Your task to perform on an android device: turn off location Image 0: 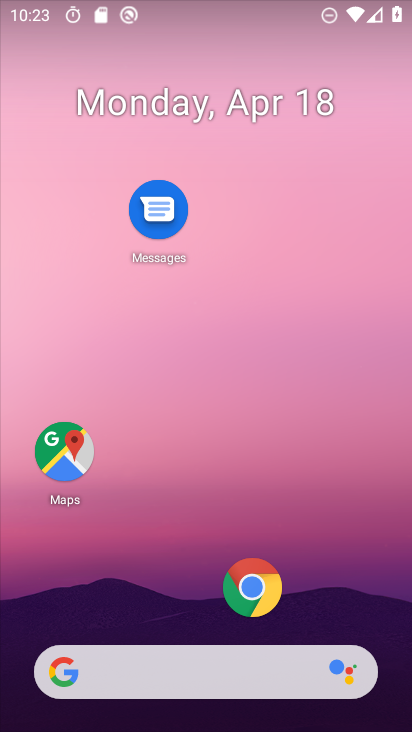
Step 0: drag from (162, 599) to (282, 38)
Your task to perform on an android device: turn off location Image 1: 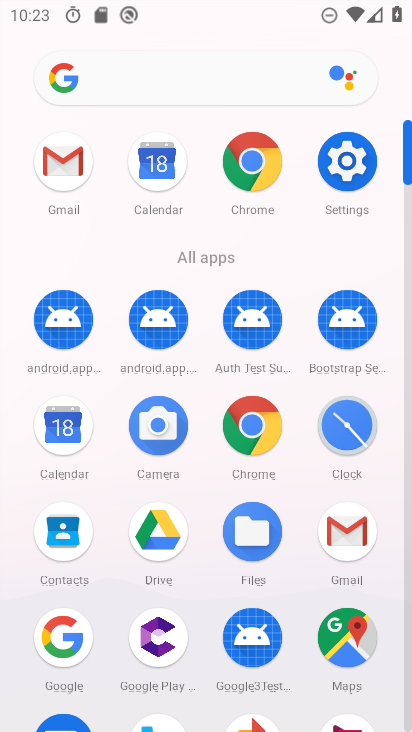
Step 1: click (342, 173)
Your task to perform on an android device: turn off location Image 2: 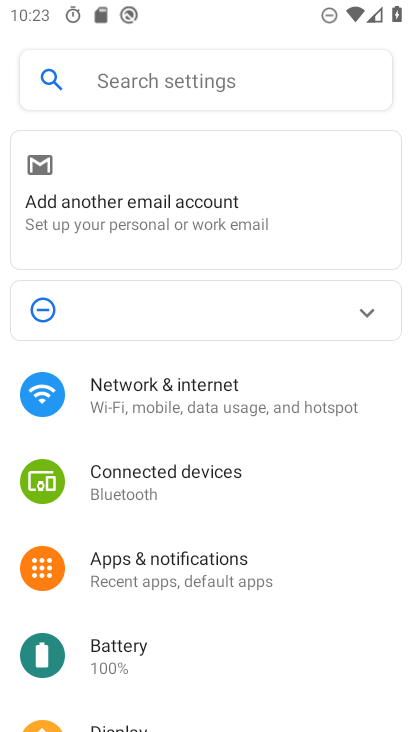
Step 2: drag from (200, 645) to (212, 290)
Your task to perform on an android device: turn off location Image 3: 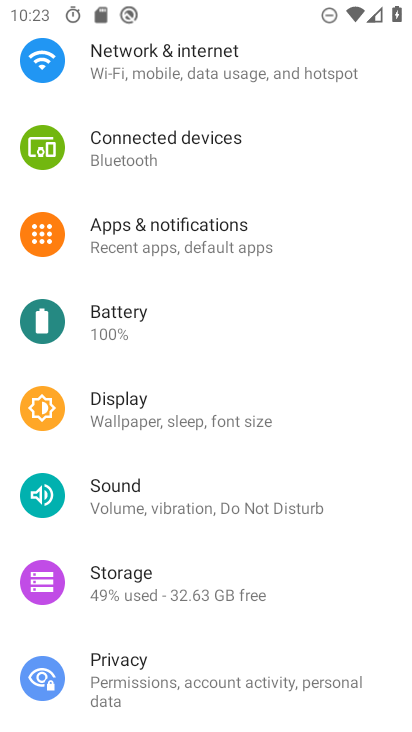
Step 3: drag from (127, 614) to (239, 160)
Your task to perform on an android device: turn off location Image 4: 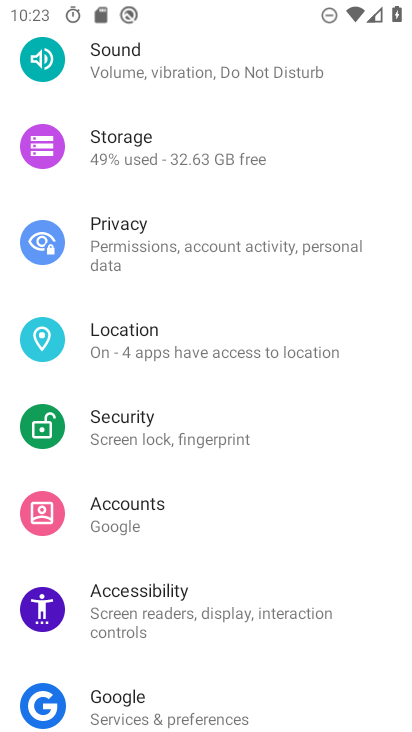
Step 4: click (150, 352)
Your task to perform on an android device: turn off location Image 5: 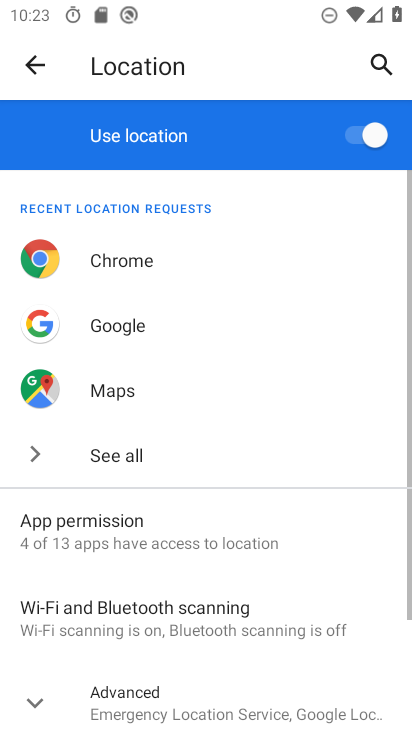
Step 5: click (342, 133)
Your task to perform on an android device: turn off location Image 6: 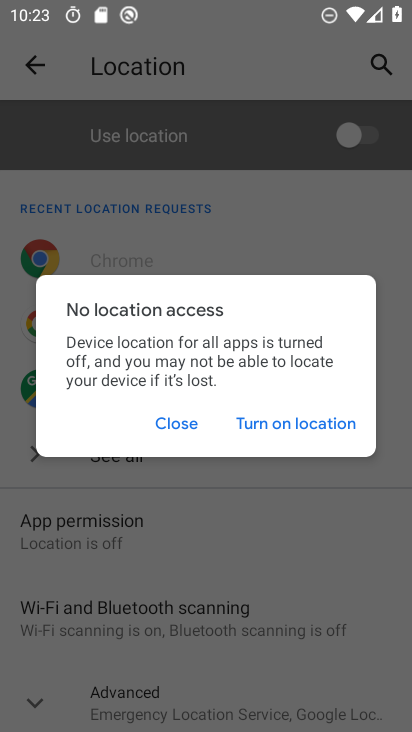
Step 6: click (159, 422)
Your task to perform on an android device: turn off location Image 7: 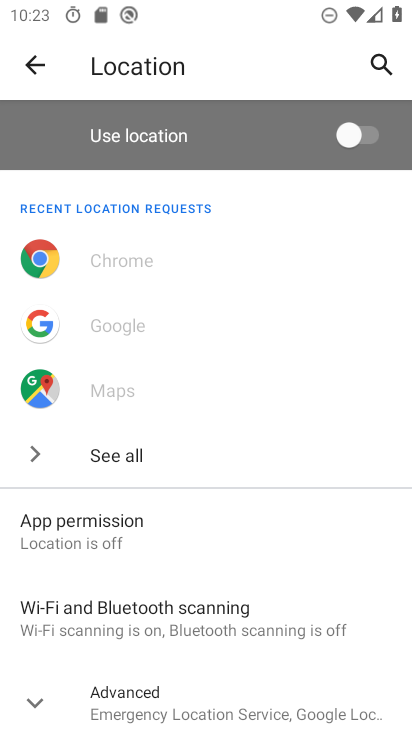
Step 7: task complete